Your task to perform on an android device: change the clock display to show seconds Image 0: 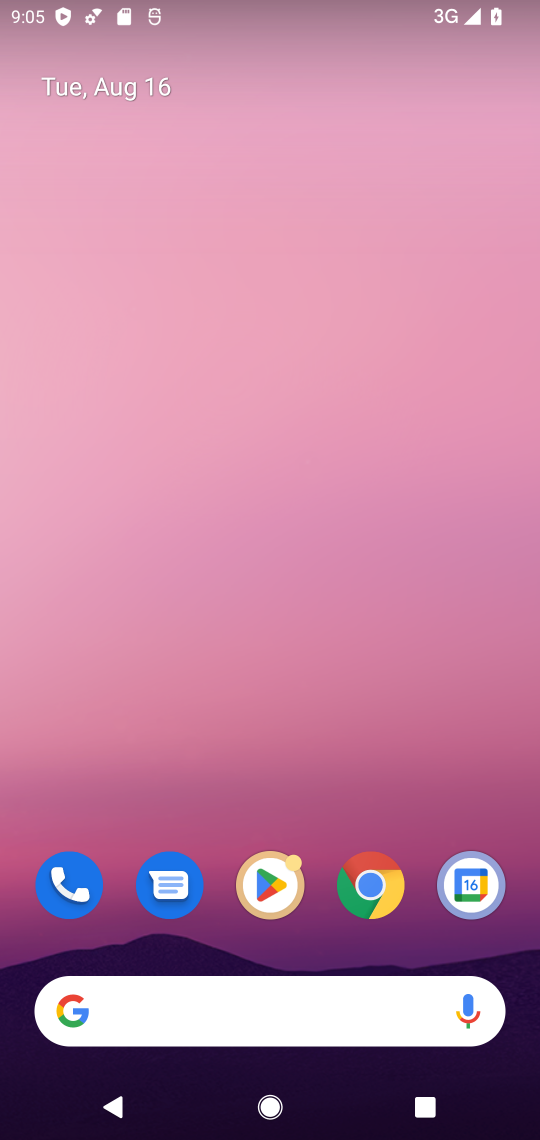
Step 0: drag from (220, 937) to (241, 98)
Your task to perform on an android device: change the clock display to show seconds Image 1: 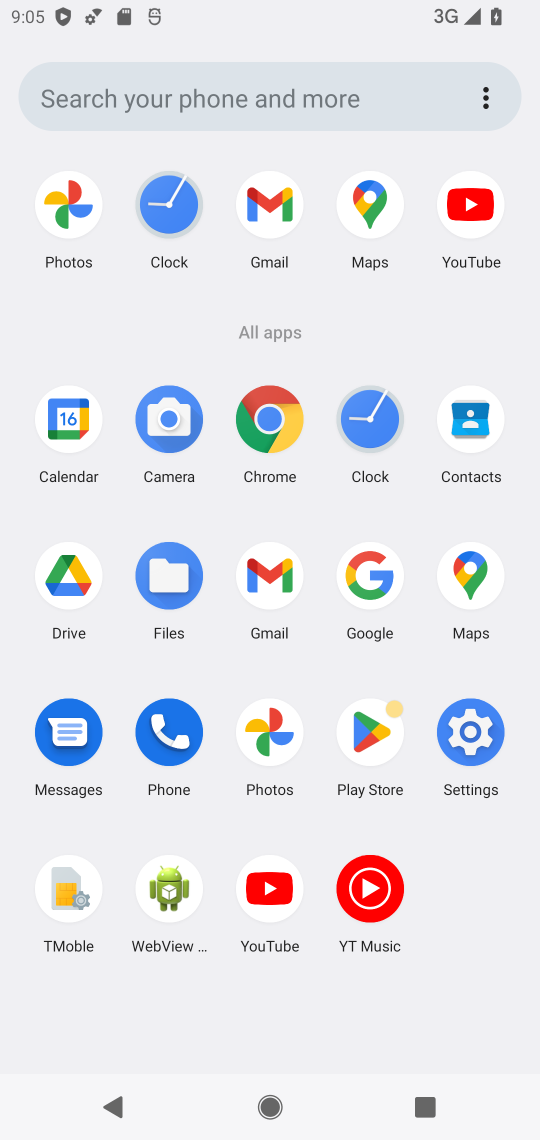
Step 1: click (375, 437)
Your task to perform on an android device: change the clock display to show seconds Image 2: 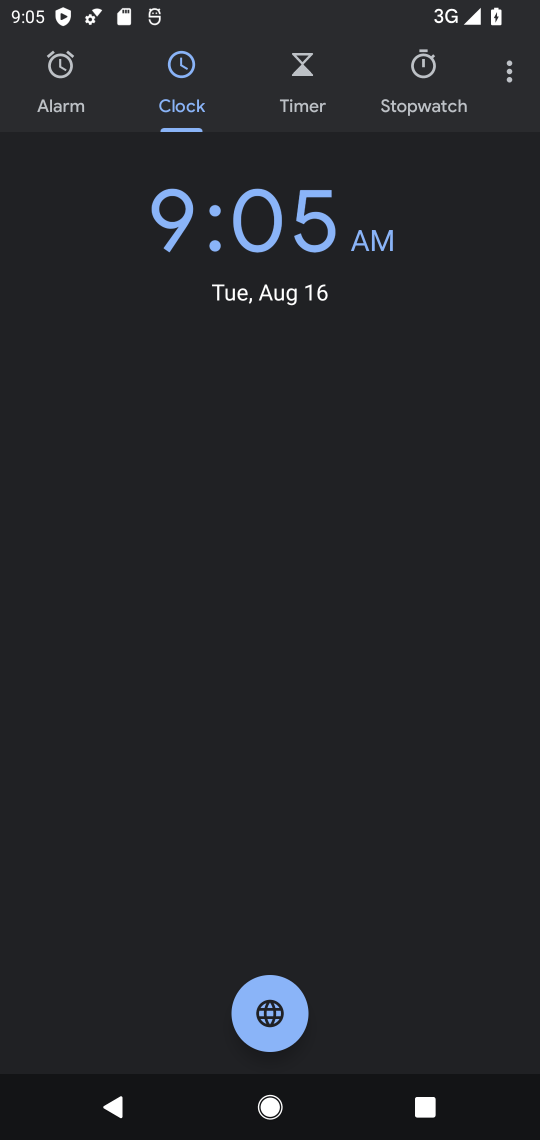
Step 2: click (514, 72)
Your task to perform on an android device: change the clock display to show seconds Image 3: 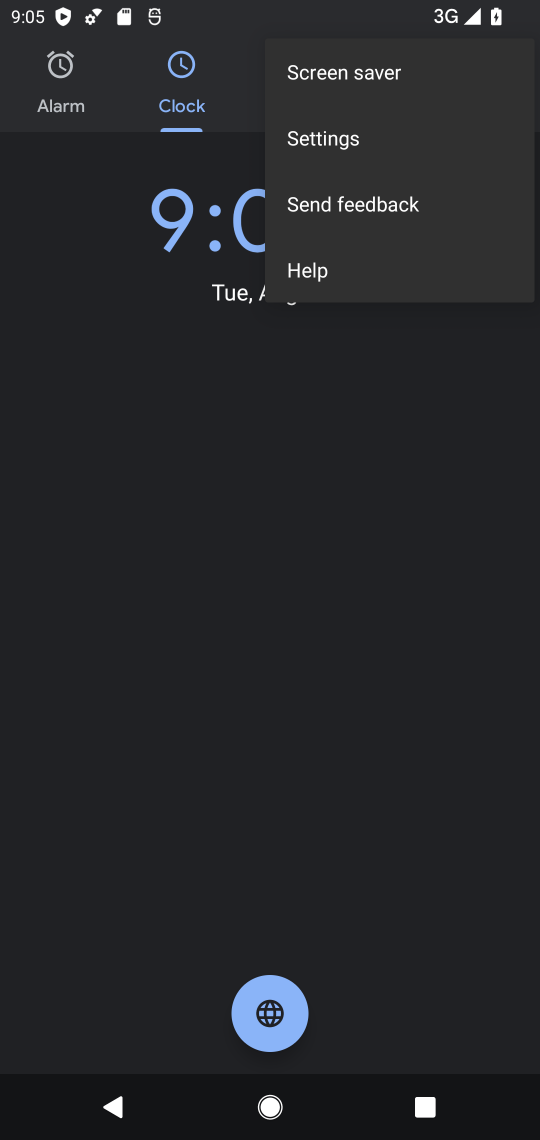
Step 3: click (356, 135)
Your task to perform on an android device: change the clock display to show seconds Image 4: 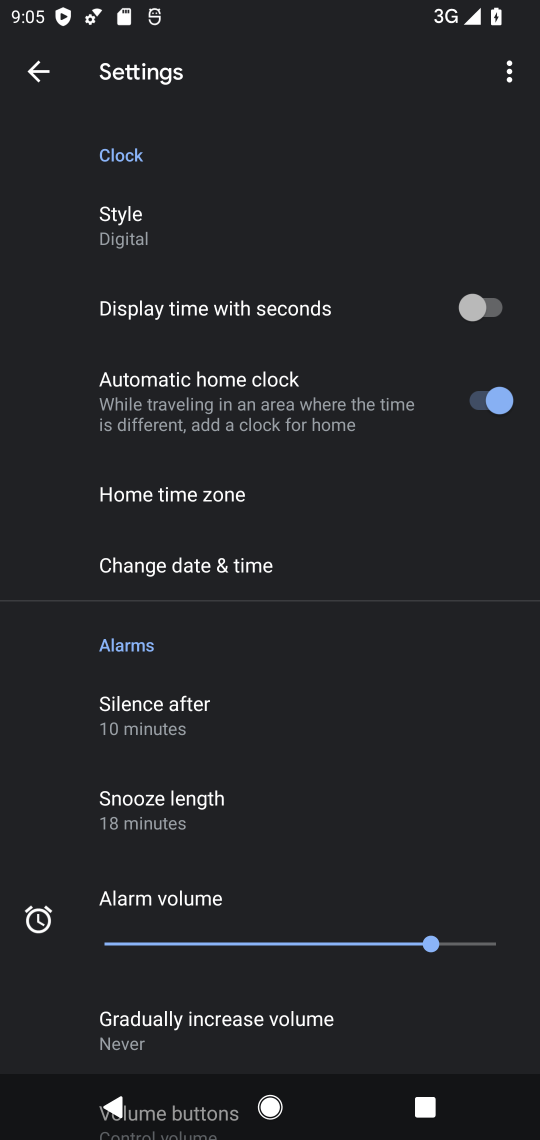
Step 4: click (499, 307)
Your task to perform on an android device: change the clock display to show seconds Image 5: 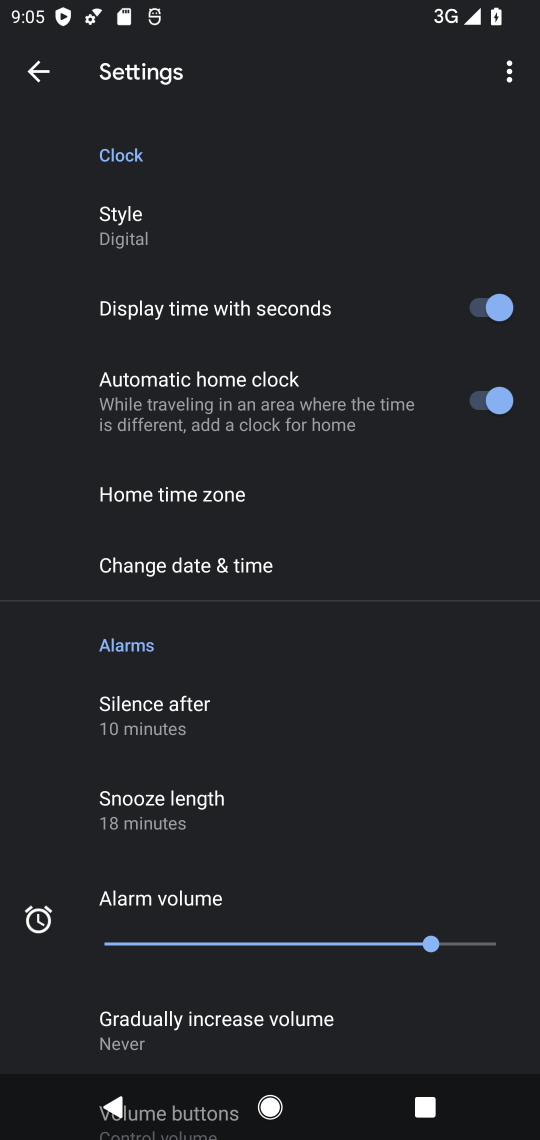
Step 5: task complete